Your task to perform on an android device: turn off smart reply in the gmail app Image 0: 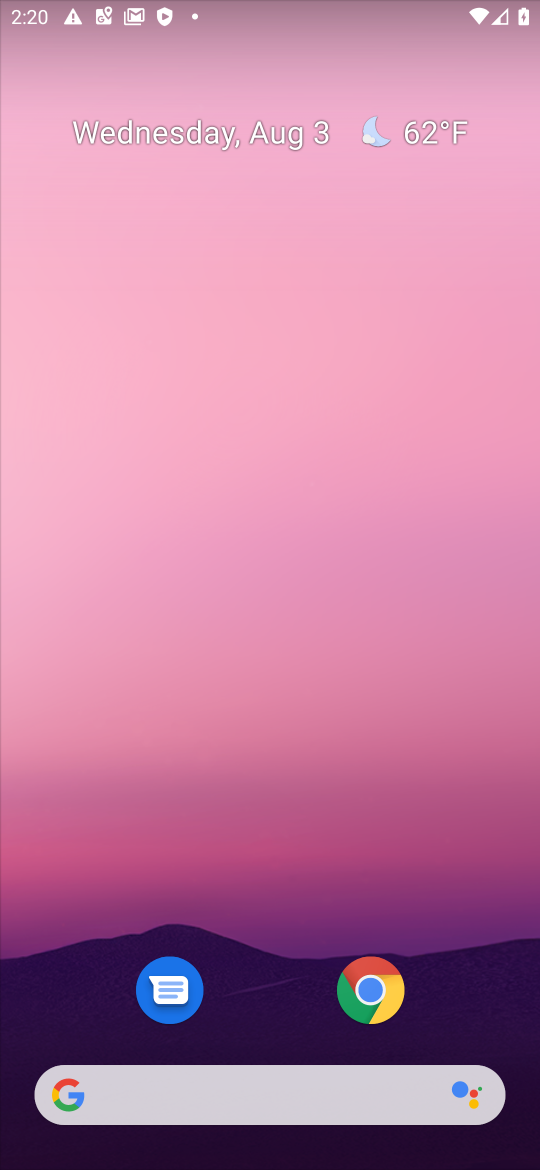
Step 0: drag from (370, 796) to (315, 387)
Your task to perform on an android device: turn off smart reply in the gmail app Image 1: 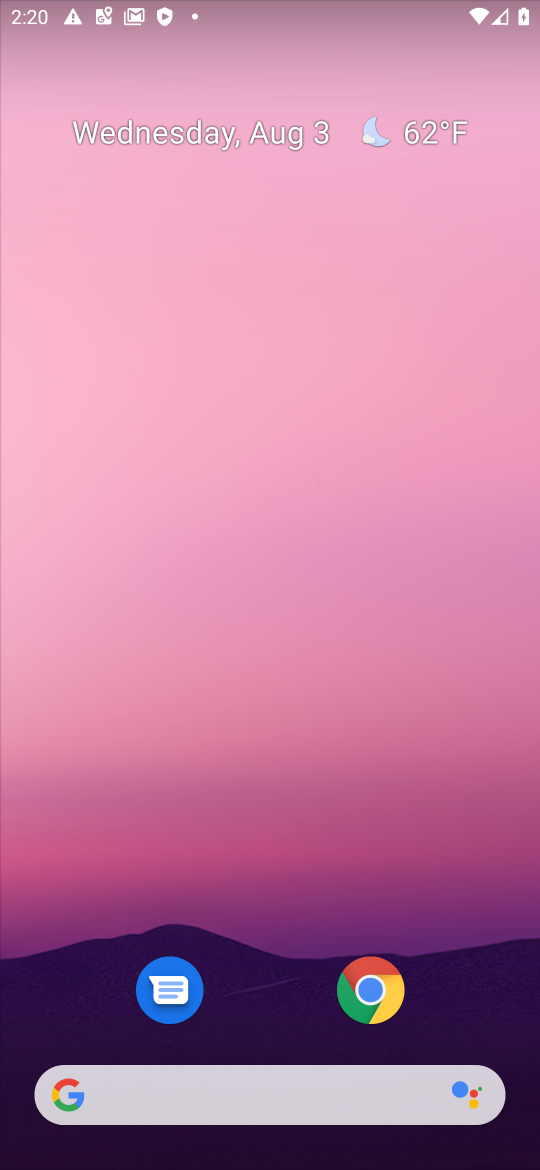
Step 1: click (230, 631)
Your task to perform on an android device: turn off smart reply in the gmail app Image 2: 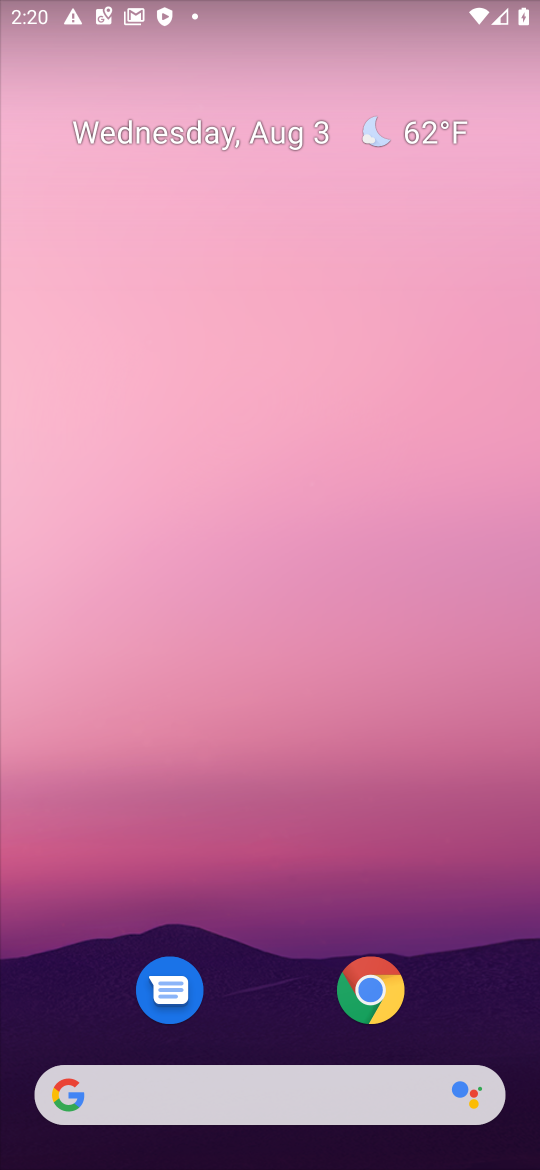
Step 2: drag from (259, 1050) to (315, 430)
Your task to perform on an android device: turn off smart reply in the gmail app Image 3: 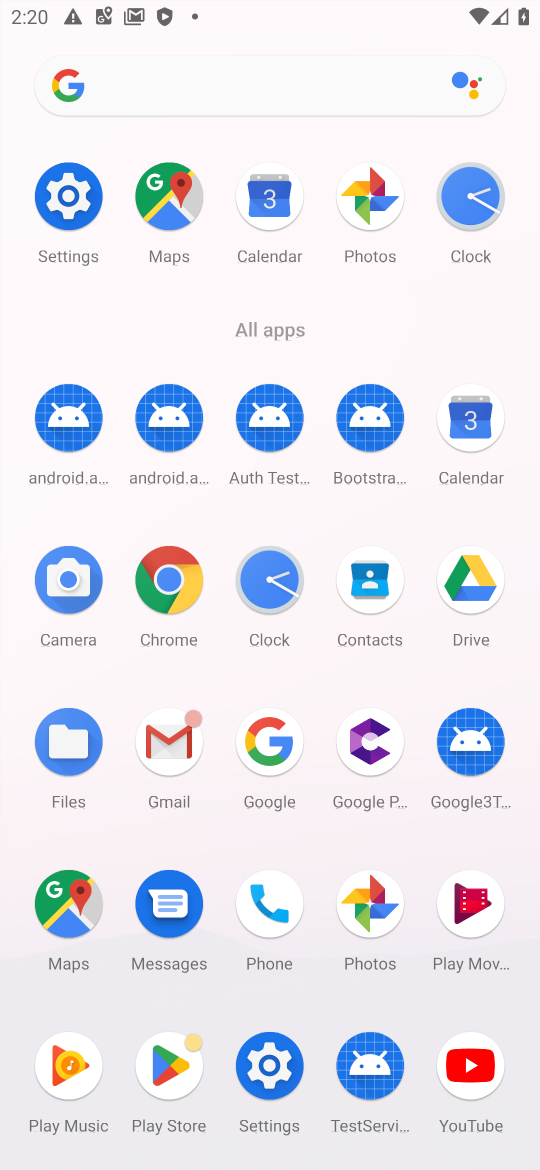
Step 3: click (170, 762)
Your task to perform on an android device: turn off smart reply in the gmail app Image 4: 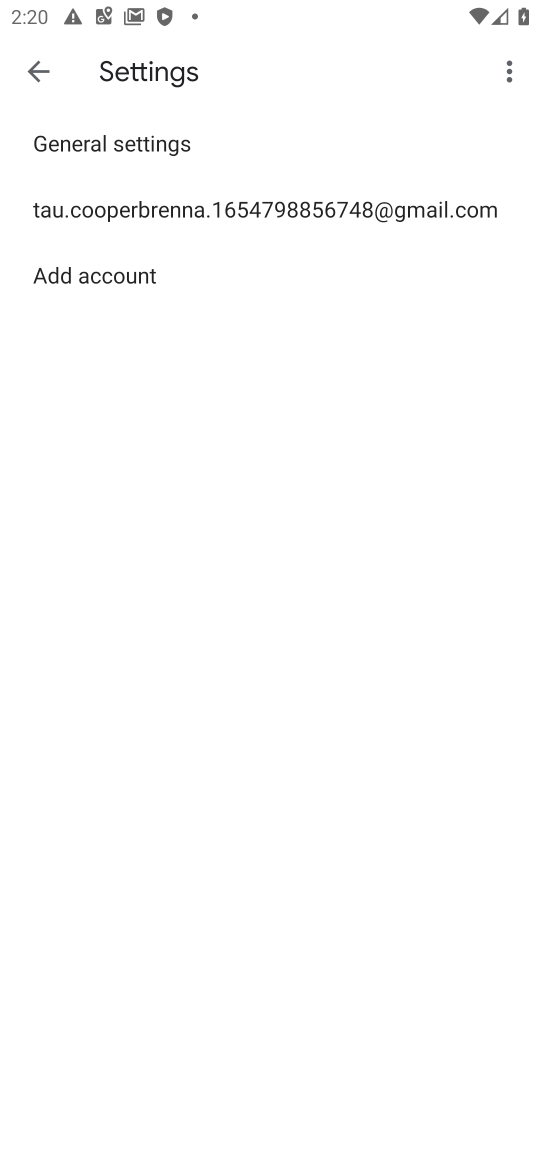
Step 4: click (101, 201)
Your task to perform on an android device: turn off smart reply in the gmail app Image 5: 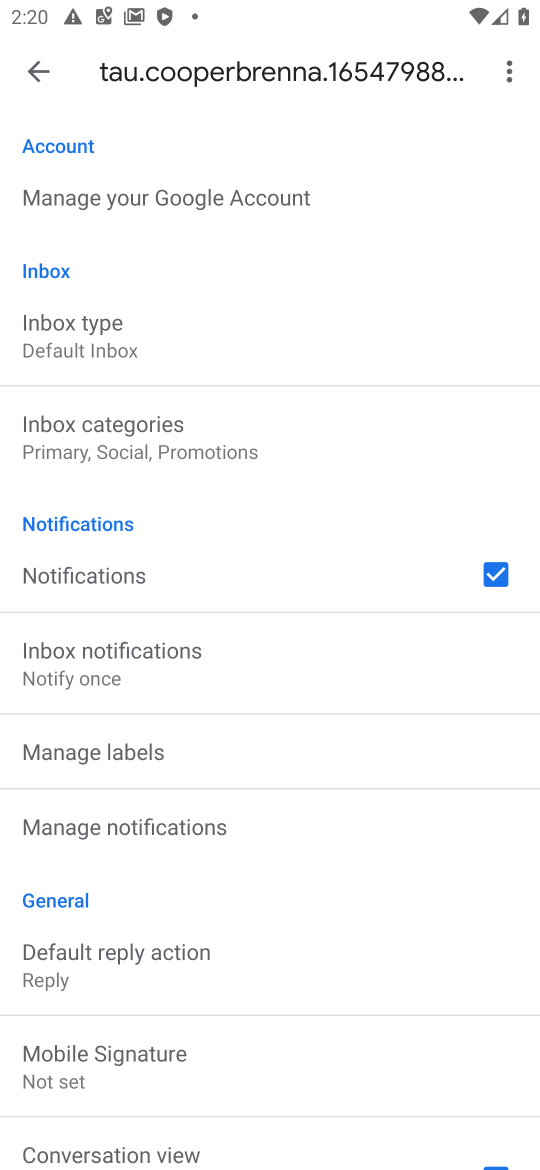
Step 5: drag from (96, 1033) to (152, 429)
Your task to perform on an android device: turn off smart reply in the gmail app Image 6: 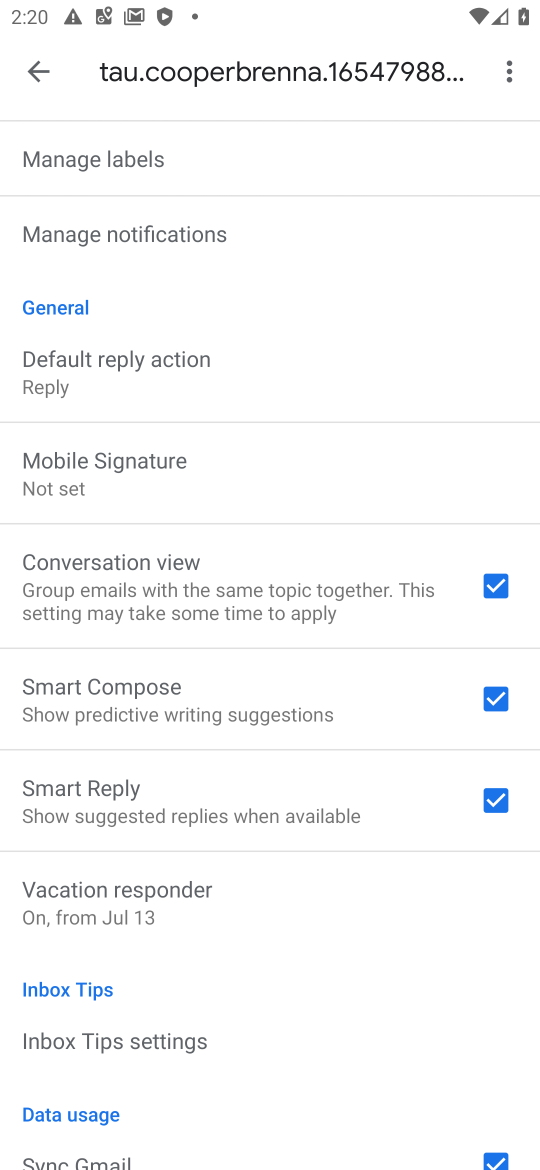
Step 6: click (500, 797)
Your task to perform on an android device: turn off smart reply in the gmail app Image 7: 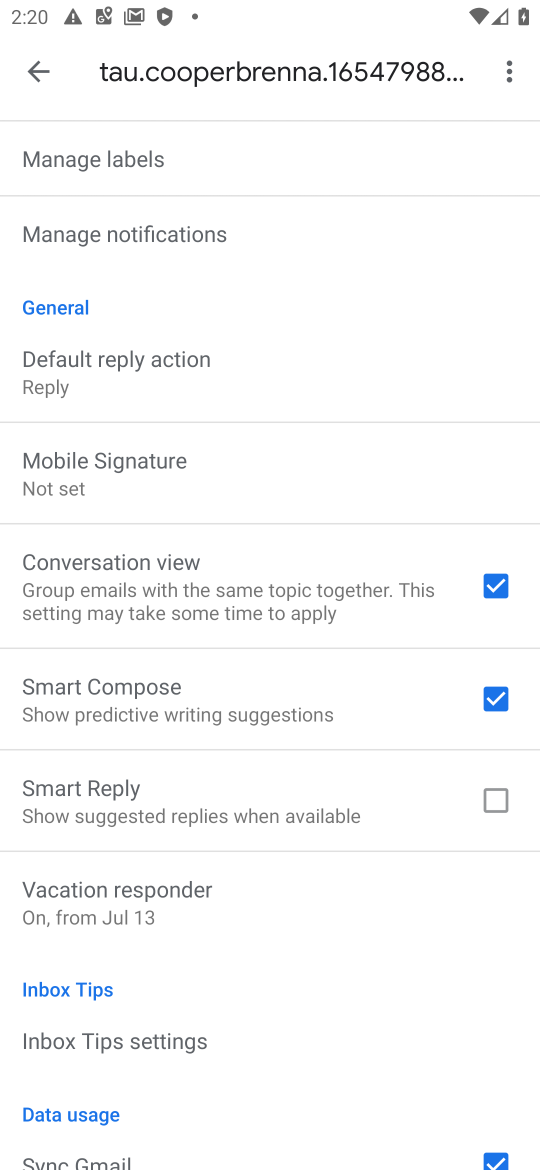
Step 7: task complete